Your task to perform on an android device: Open settings Image 0: 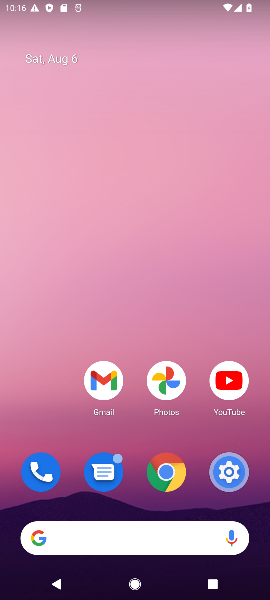
Step 0: drag from (250, 454) to (154, 10)
Your task to perform on an android device: Open settings Image 1: 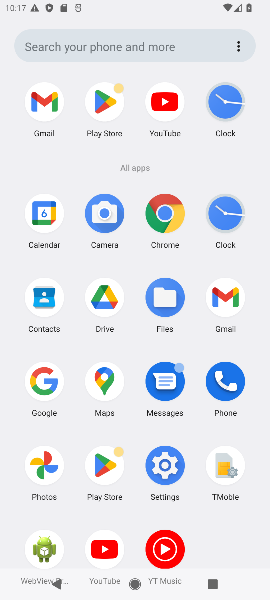
Step 1: click (165, 474)
Your task to perform on an android device: Open settings Image 2: 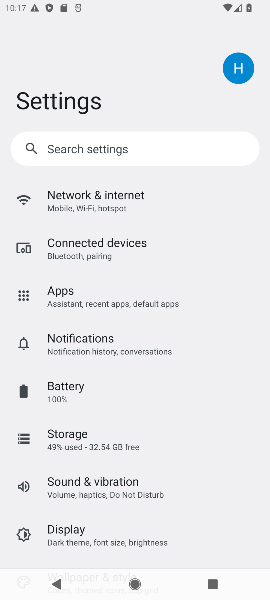
Step 2: task complete